Your task to perform on an android device: change notifications settings Image 0: 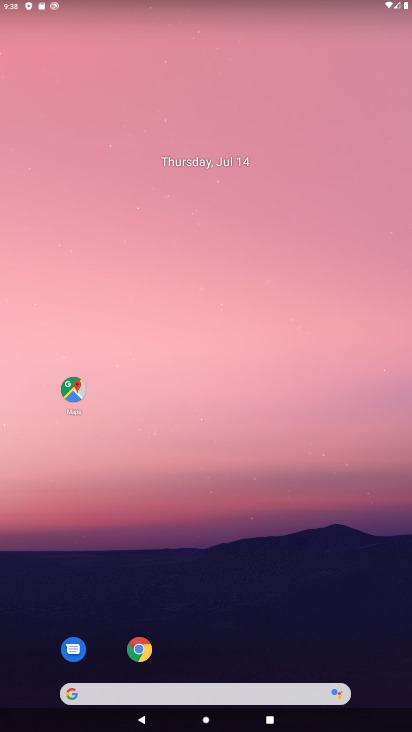
Step 0: drag from (179, 647) to (196, 73)
Your task to perform on an android device: change notifications settings Image 1: 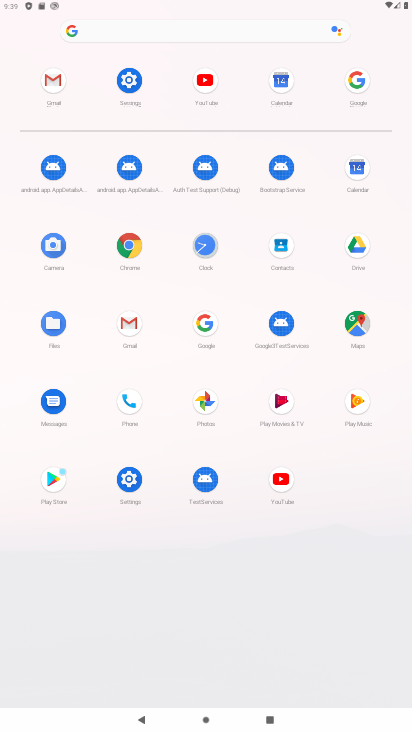
Step 1: click (130, 94)
Your task to perform on an android device: change notifications settings Image 2: 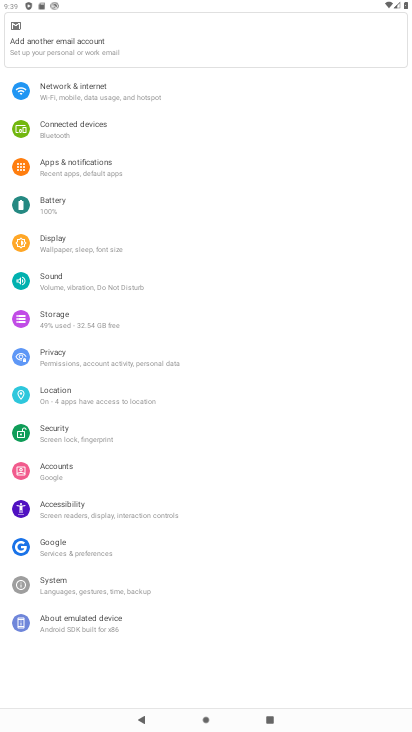
Step 2: click (91, 175)
Your task to perform on an android device: change notifications settings Image 3: 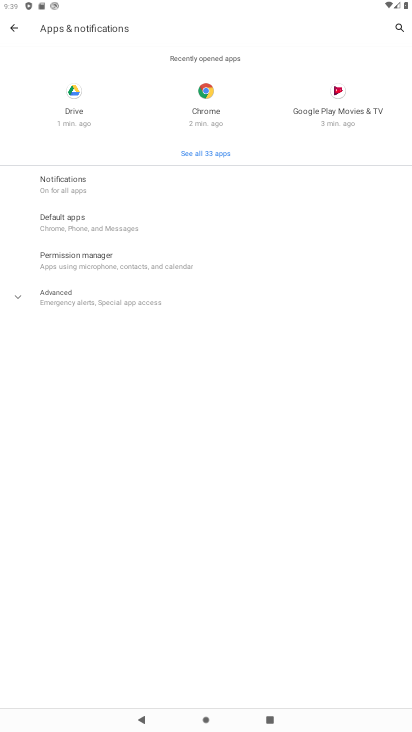
Step 3: click (61, 188)
Your task to perform on an android device: change notifications settings Image 4: 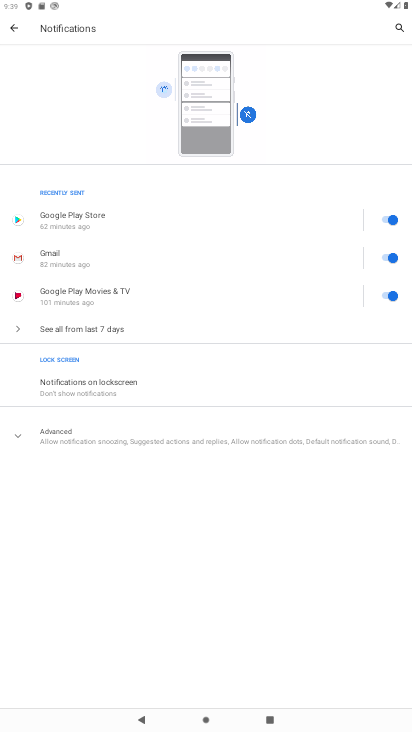
Step 4: click (92, 395)
Your task to perform on an android device: change notifications settings Image 5: 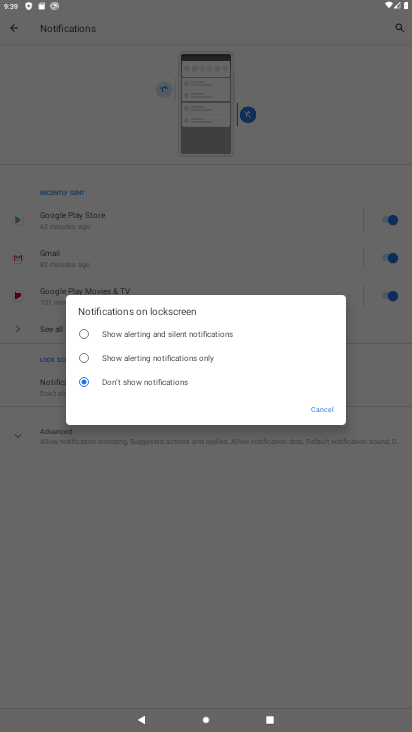
Step 5: click (126, 342)
Your task to perform on an android device: change notifications settings Image 6: 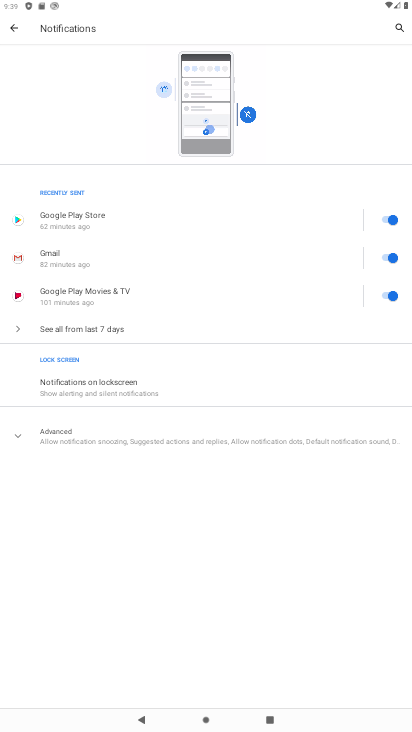
Step 6: task complete